Your task to perform on an android device: Go to battery settings Image 0: 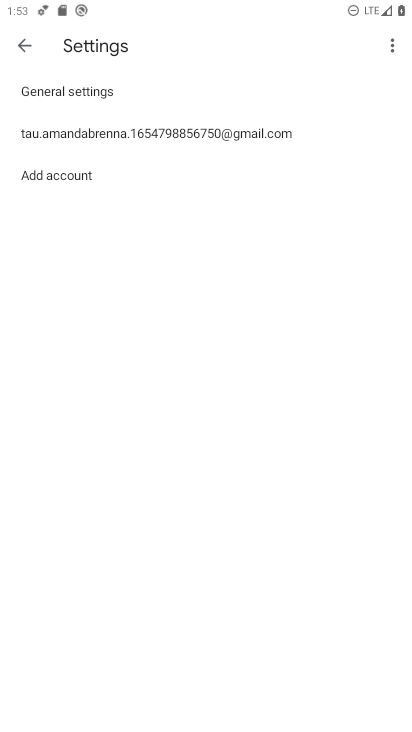
Step 0: press home button
Your task to perform on an android device: Go to battery settings Image 1: 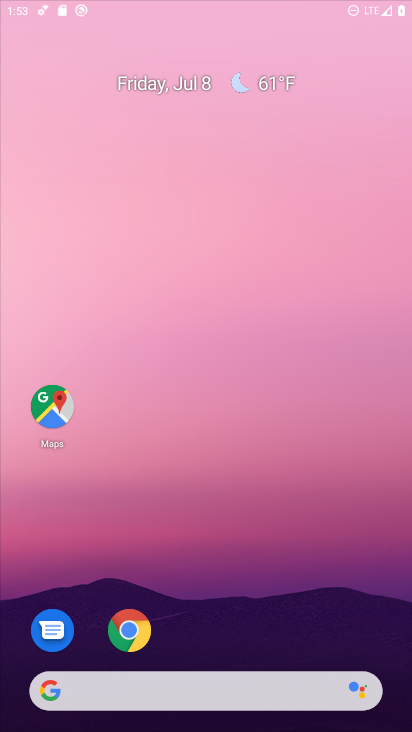
Step 1: drag from (401, 661) to (329, 44)
Your task to perform on an android device: Go to battery settings Image 2: 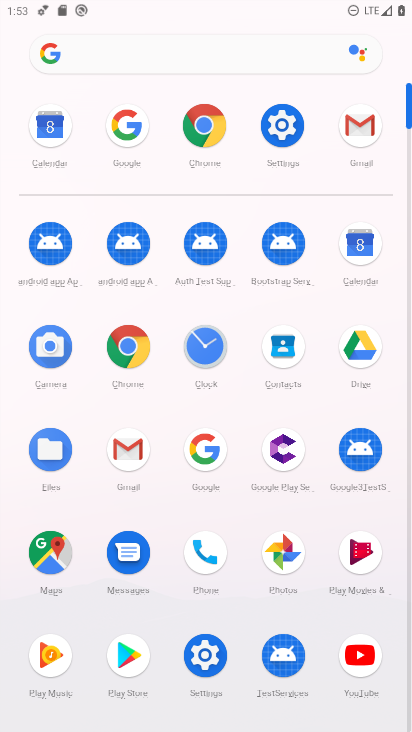
Step 2: click (202, 660)
Your task to perform on an android device: Go to battery settings Image 3: 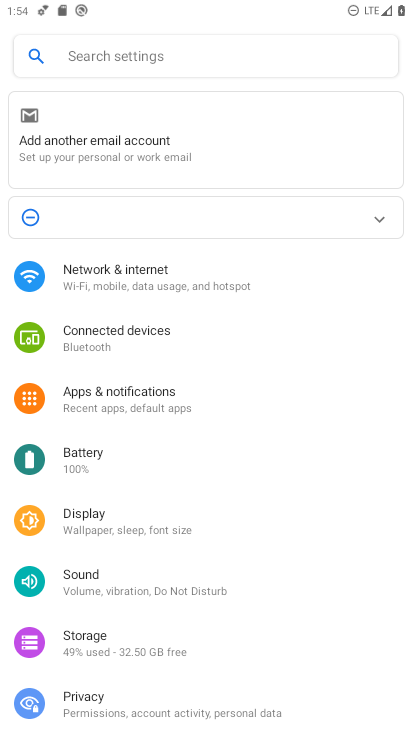
Step 3: click (59, 459)
Your task to perform on an android device: Go to battery settings Image 4: 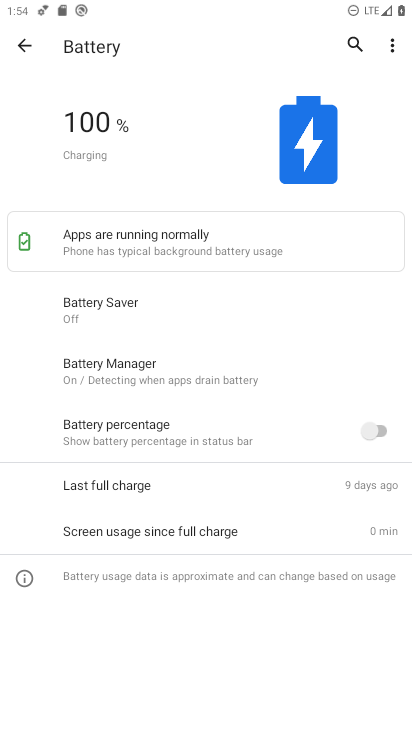
Step 4: task complete